Your task to perform on an android device: Open calendar and show me the first week of next month Image 0: 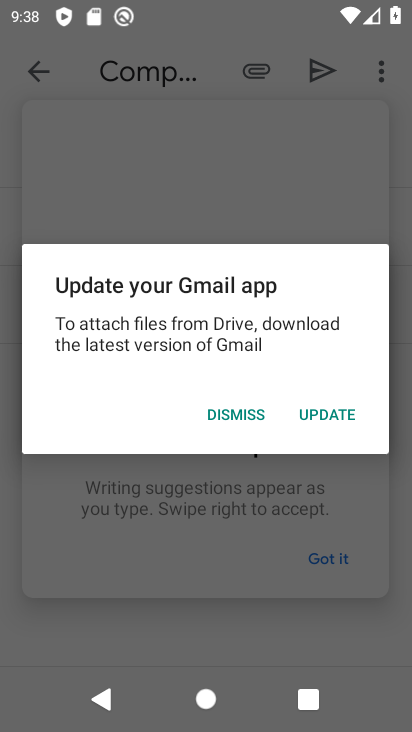
Step 0: press back button
Your task to perform on an android device: Open calendar and show me the first week of next month Image 1: 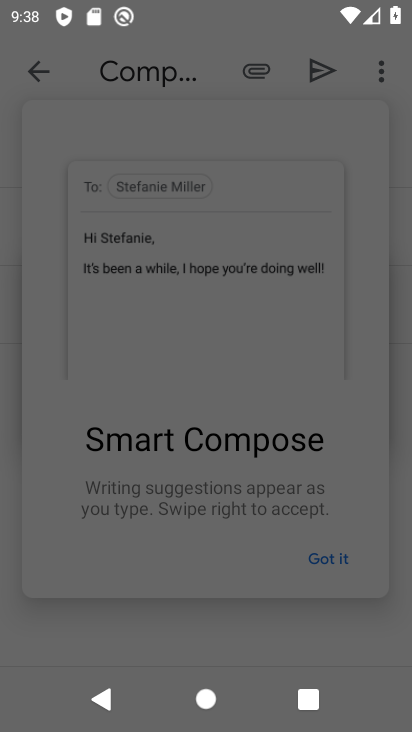
Step 1: press home button
Your task to perform on an android device: Open calendar and show me the first week of next month Image 2: 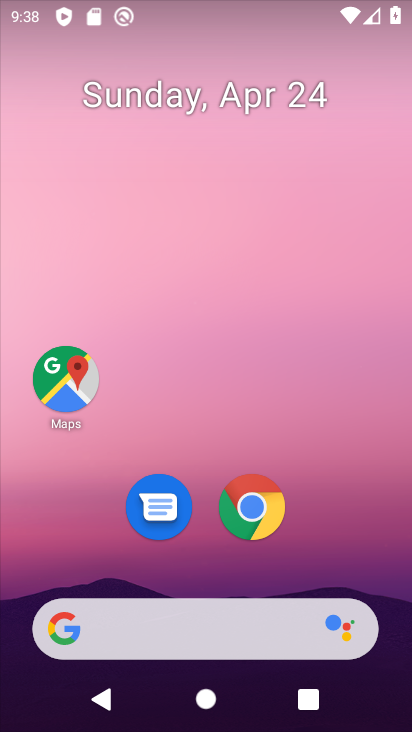
Step 2: drag from (72, 546) to (203, 147)
Your task to perform on an android device: Open calendar and show me the first week of next month Image 3: 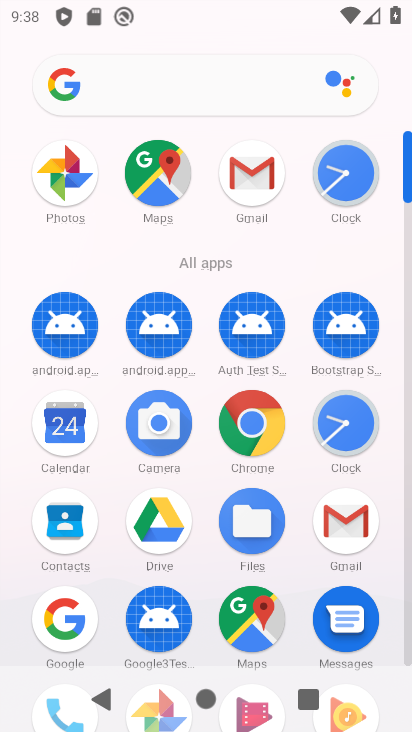
Step 3: click (78, 435)
Your task to perform on an android device: Open calendar and show me the first week of next month Image 4: 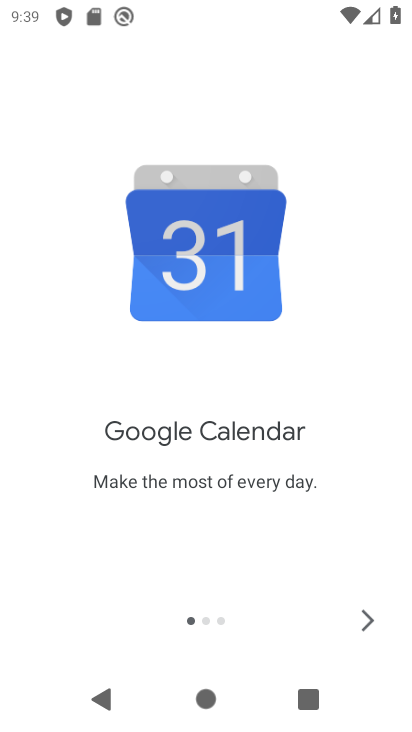
Step 4: click (367, 627)
Your task to perform on an android device: Open calendar and show me the first week of next month Image 5: 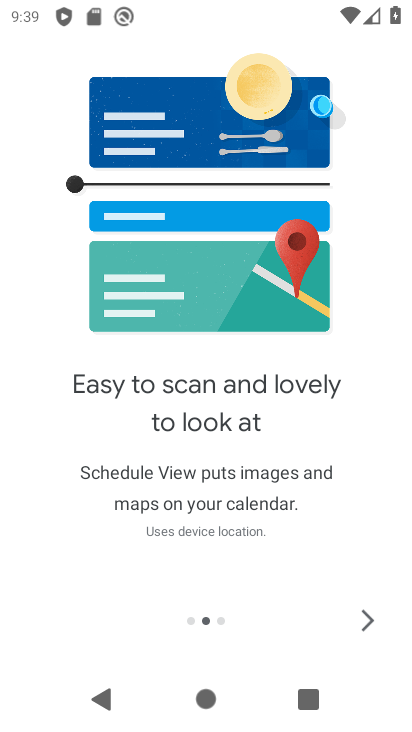
Step 5: click (367, 627)
Your task to perform on an android device: Open calendar and show me the first week of next month Image 6: 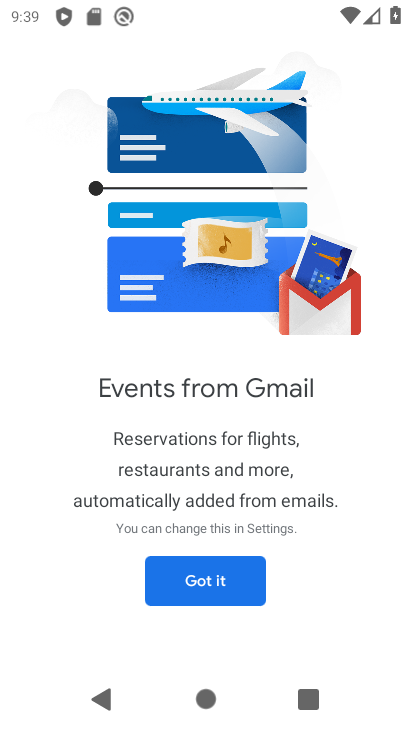
Step 6: click (235, 600)
Your task to perform on an android device: Open calendar and show me the first week of next month Image 7: 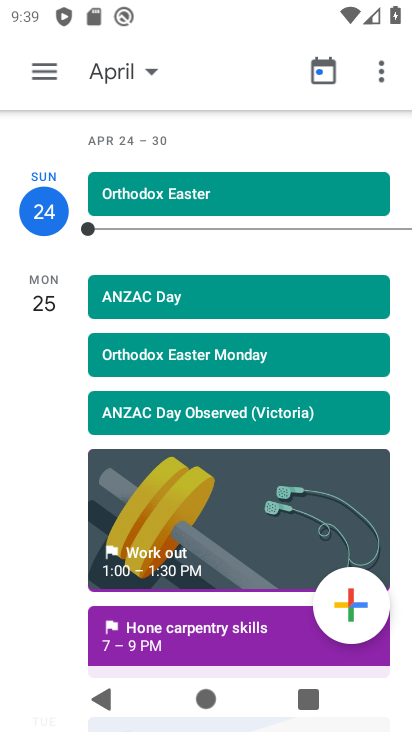
Step 7: click (116, 78)
Your task to perform on an android device: Open calendar and show me the first week of next month Image 8: 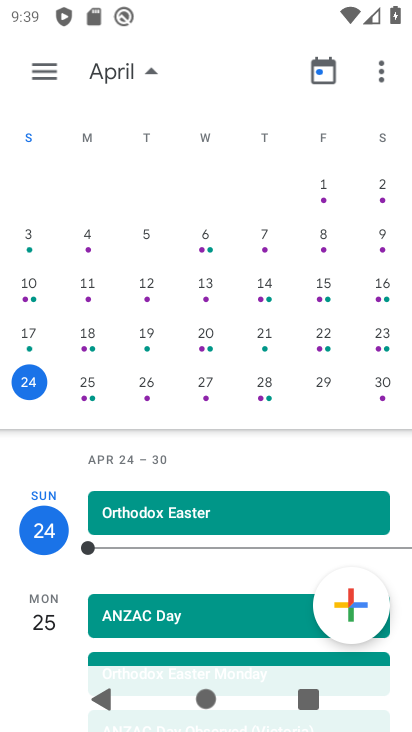
Step 8: drag from (370, 197) to (6, 190)
Your task to perform on an android device: Open calendar and show me the first week of next month Image 9: 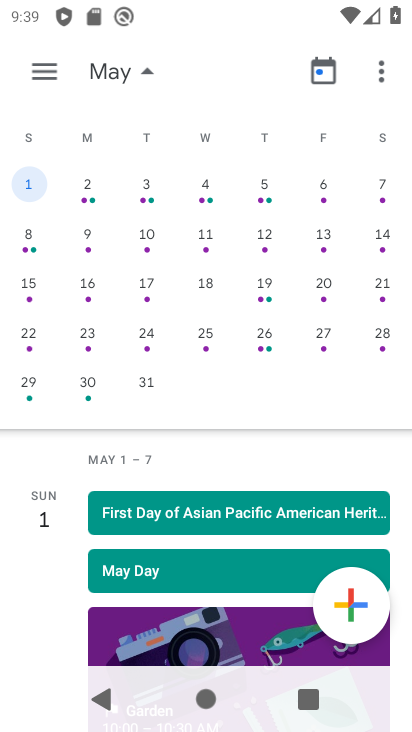
Step 9: click (35, 68)
Your task to perform on an android device: Open calendar and show me the first week of next month Image 10: 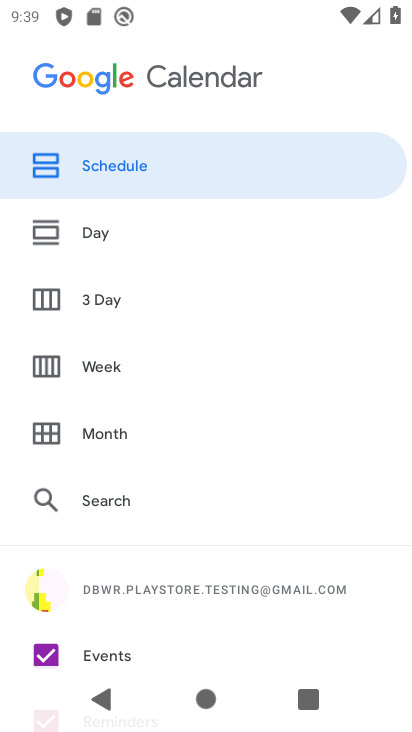
Step 10: click (113, 374)
Your task to perform on an android device: Open calendar and show me the first week of next month Image 11: 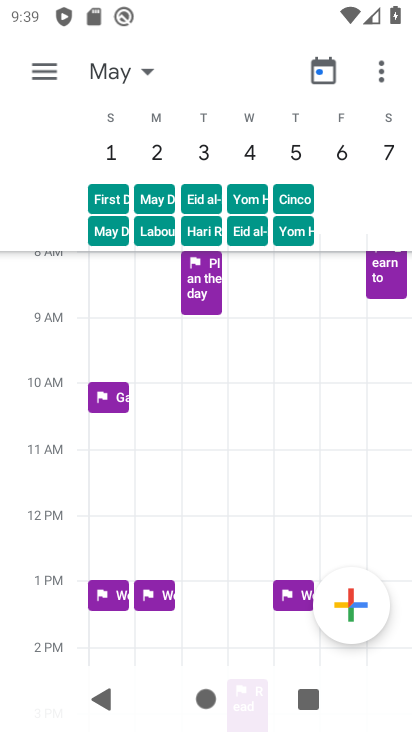
Step 11: task complete